Your task to perform on an android device: see creations saved in the google photos Image 0: 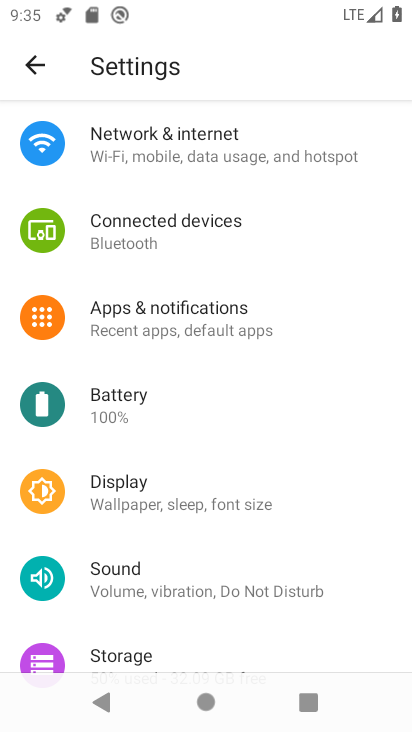
Step 0: press home button
Your task to perform on an android device: see creations saved in the google photos Image 1: 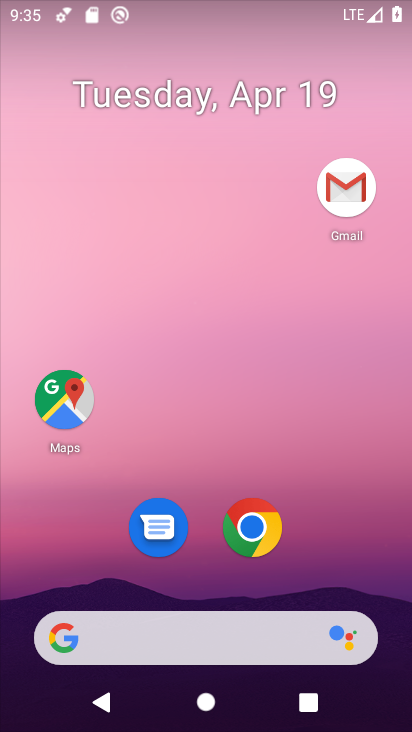
Step 1: drag from (363, 502) to (363, 153)
Your task to perform on an android device: see creations saved in the google photos Image 2: 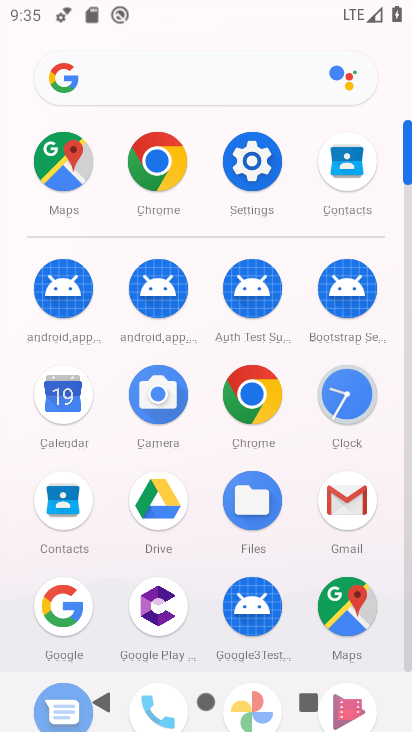
Step 2: drag from (383, 552) to (383, 300)
Your task to perform on an android device: see creations saved in the google photos Image 3: 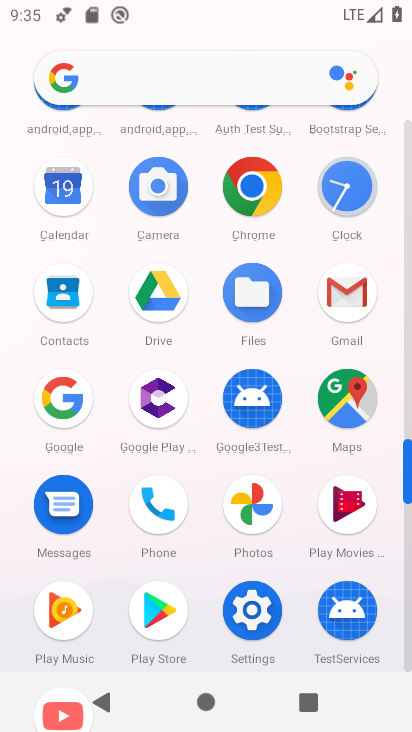
Step 3: click (248, 505)
Your task to perform on an android device: see creations saved in the google photos Image 4: 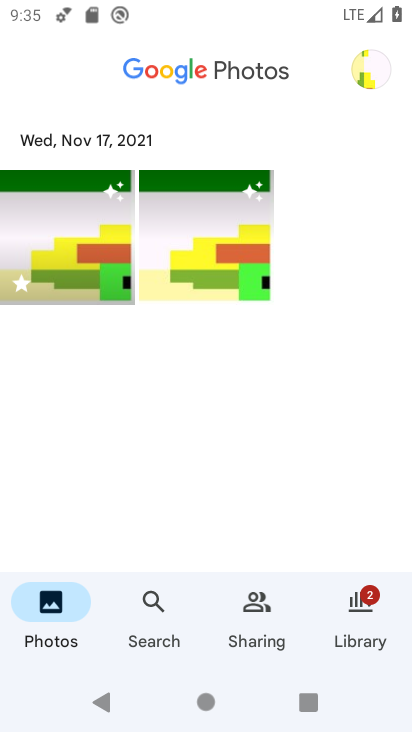
Step 4: click (145, 606)
Your task to perform on an android device: see creations saved in the google photos Image 5: 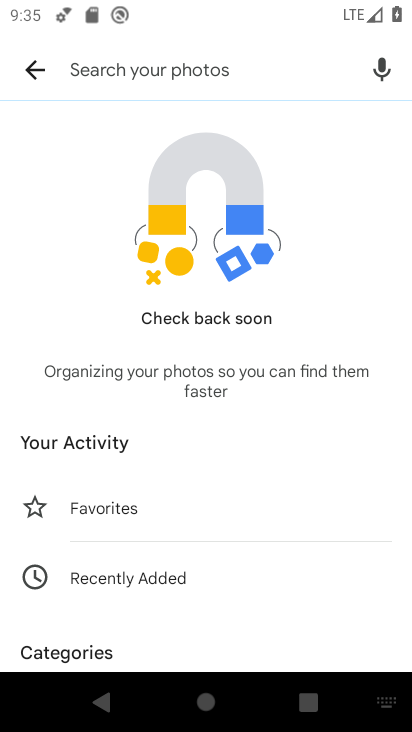
Step 5: click (202, 70)
Your task to perform on an android device: see creations saved in the google photos Image 6: 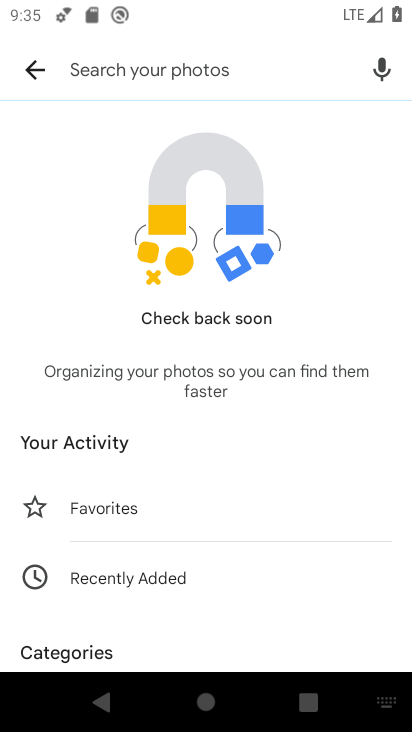
Step 6: type "creations"
Your task to perform on an android device: see creations saved in the google photos Image 7: 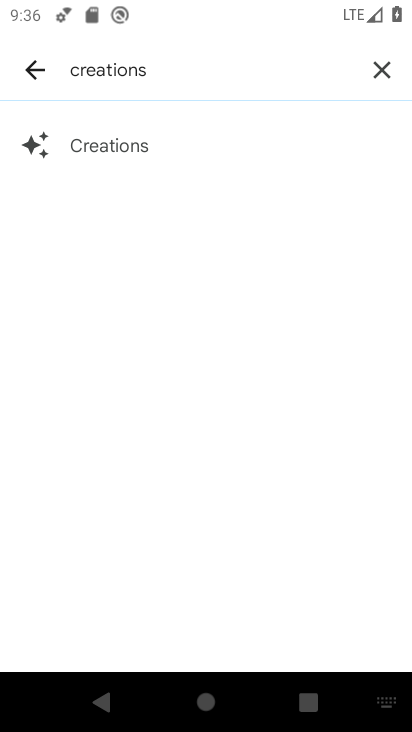
Step 7: click (115, 145)
Your task to perform on an android device: see creations saved in the google photos Image 8: 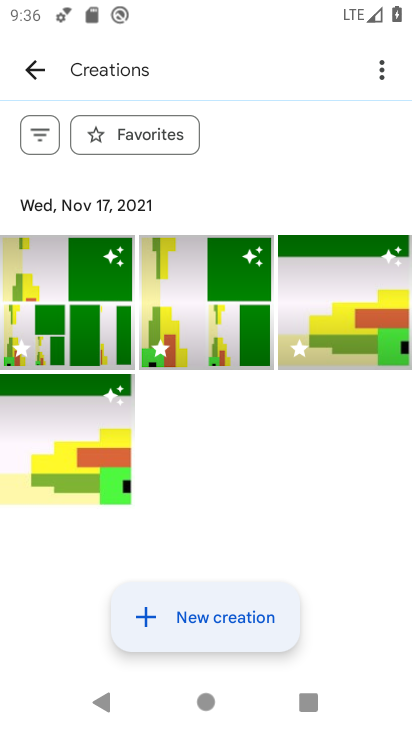
Step 8: task complete